Your task to perform on an android device: turn off javascript in the chrome app Image 0: 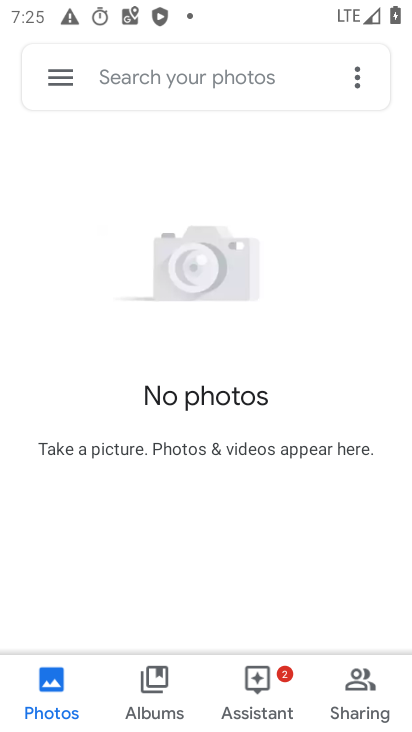
Step 0: press home button
Your task to perform on an android device: turn off javascript in the chrome app Image 1: 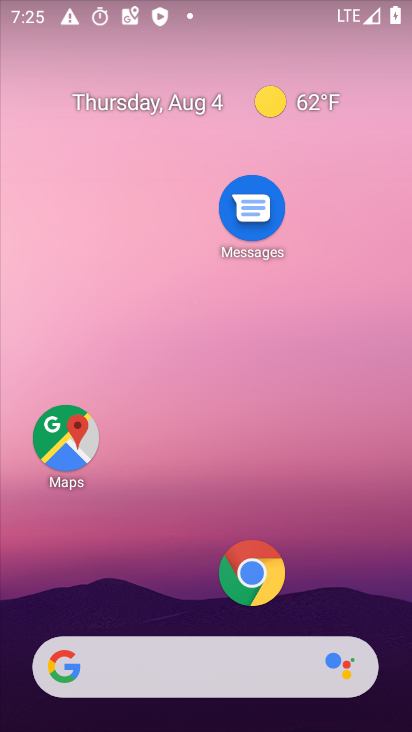
Step 1: drag from (182, 623) to (225, 160)
Your task to perform on an android device: turn off javascript in the chrome app Image 2: 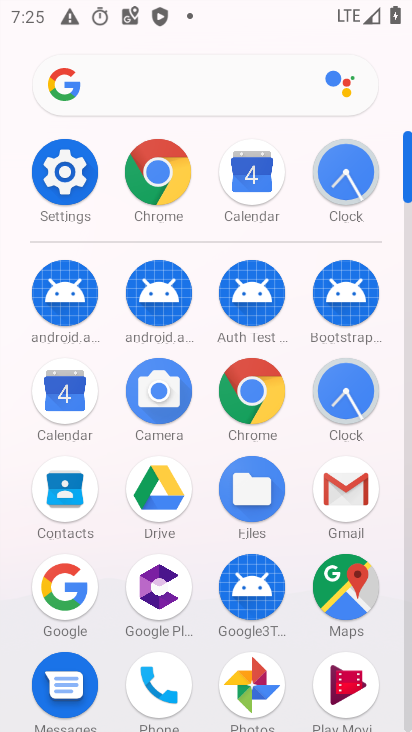
Step 2: click (168, 196)
Your task to perform on an android device: turn off javascript in the chrome app Image 3: 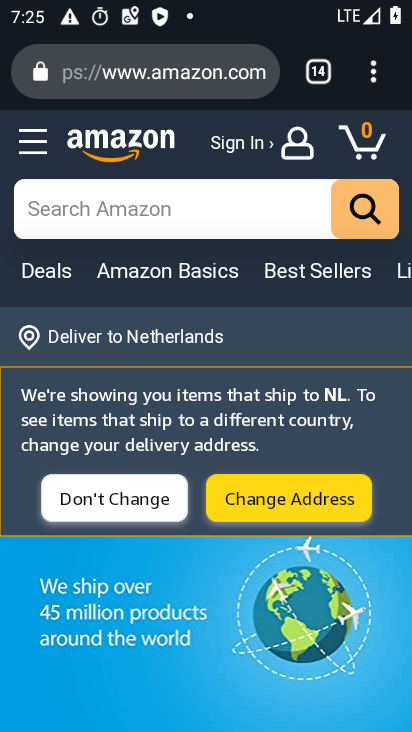
Step 3: drag from (384, 70) to (124, 577)
Your task to perform on an android device: turn off javascript in the chrome app Image 4: 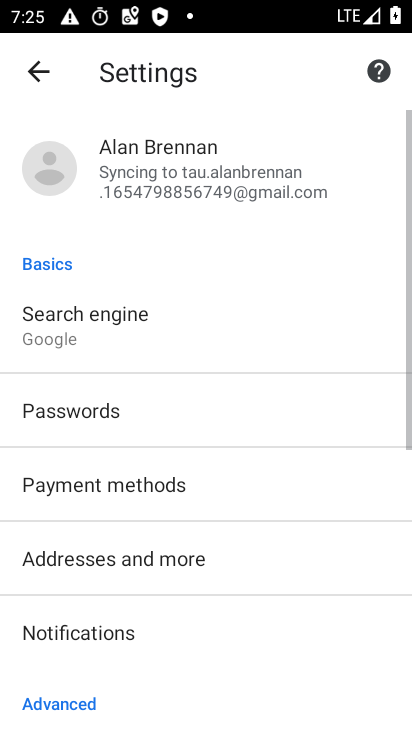
Step 4: drag from (252, 657) to (229, 209)
Your task to perform on an android device: turn off javascript in the chrome app Image 5: 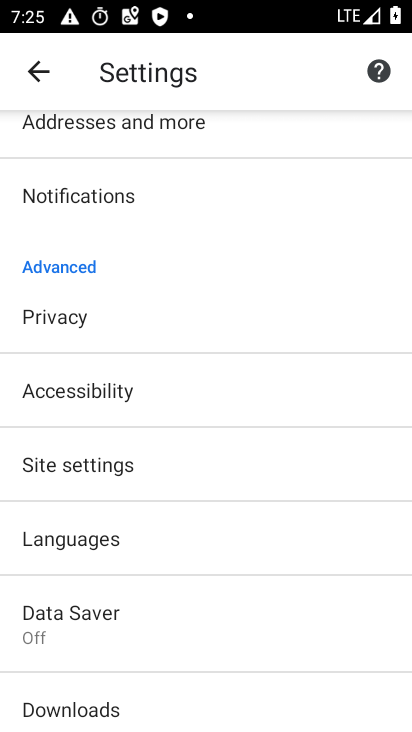
Step 5: click (73, 469)
Your task to perform on an android device: turn off javascript in the chrome app Image 6: 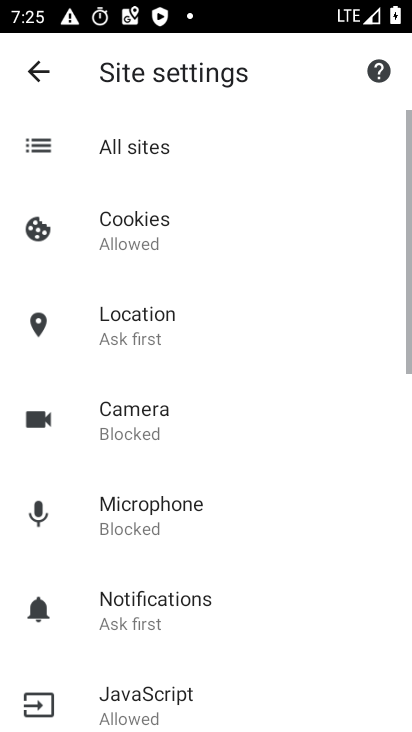
Step 6: drag from (302, 626) to (265, 409)
Your task to perform on an android device: turn off javascript in the chrome app Image 7: 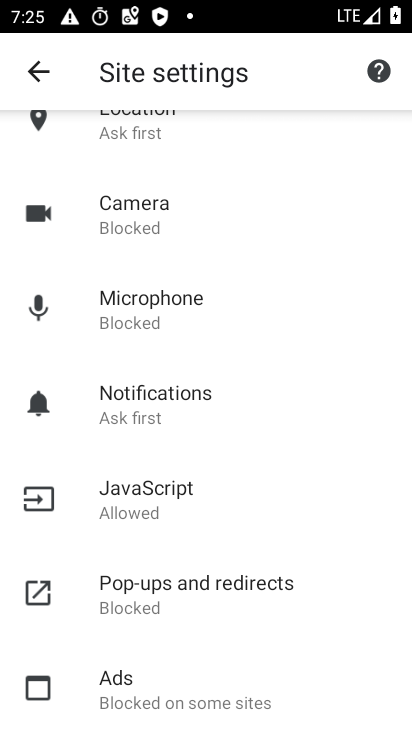
Step 7: click (144, 503)
Your task to perform on an android device: turn off javascript in the chrome app Image 8: 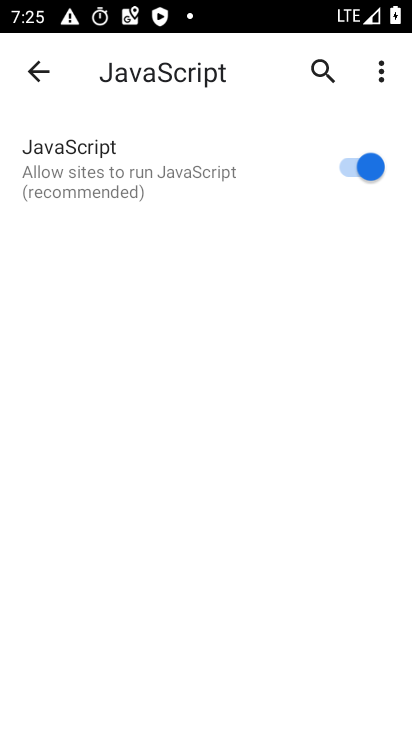
Step 8: click (373, 170)
Your task to perform on an android device: turn off javascript in the chrome app Image 9: 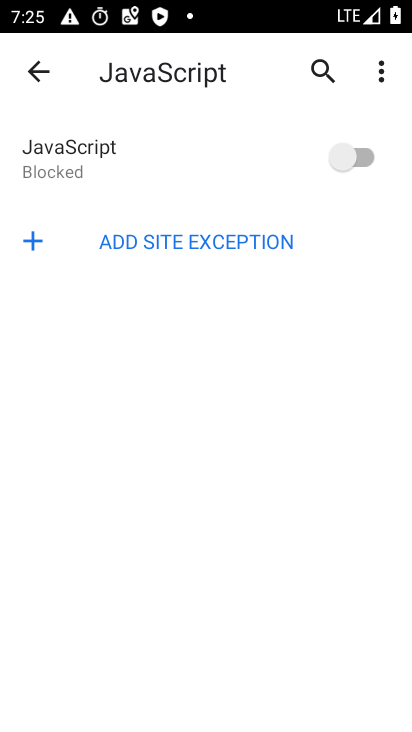
Step 9: task complete